Your task to perform on an android device: turn on the 12-hour format for clock Image 0: 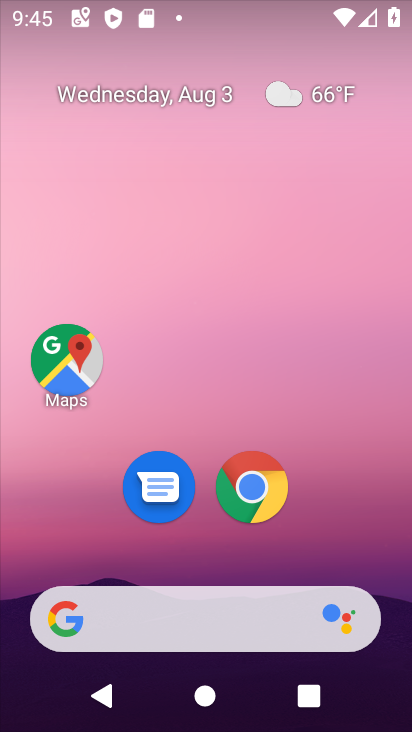
Step 0: drag from (76, 494) to (210, 23)
Your task to perform on an android device: turn on the 12-hour format for clock Image 1: 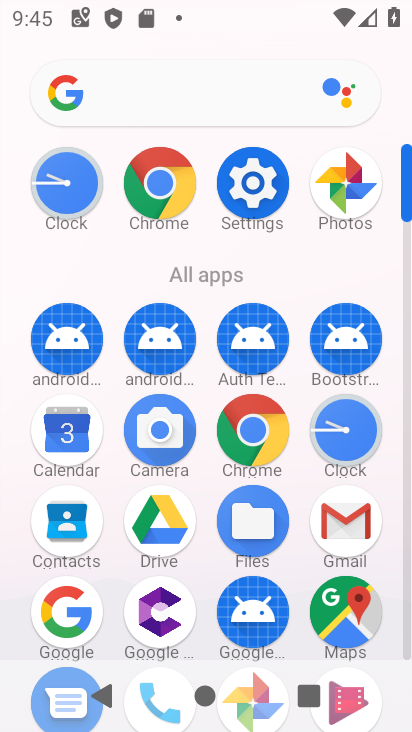
Step 1: click (346, 436)
Your task to perform on an android device: turn on the 12-hour format for clock Image 2: 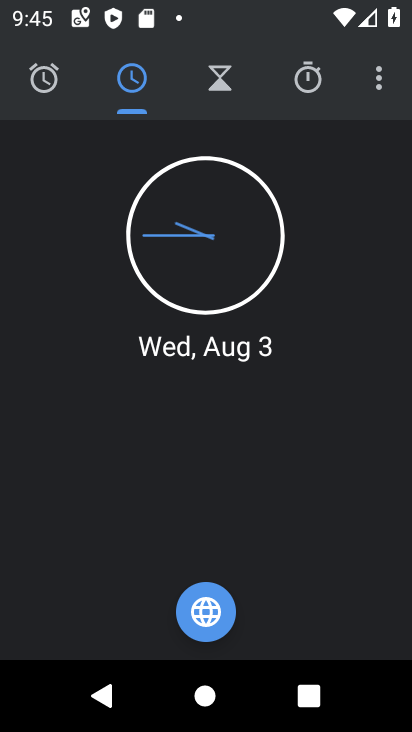
Step 2: click (379, 72)
Your task to perform on an android device: turn on the 12-hour format for clock Image 3: 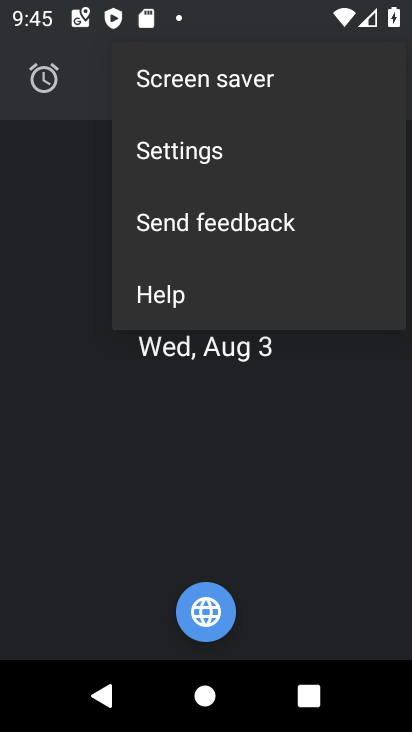
Step 3: click (204, 151)
Your task to perform on an android device: turn on the 12-hour format for clock Image 4: 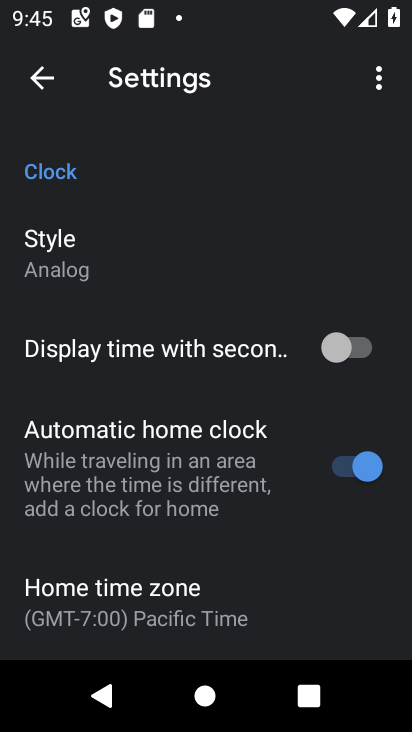
Step 4: drag from (136, 579) to (214, 58)
Your task to perform on an android device: turn on the 12-hour format for clock Image 5: 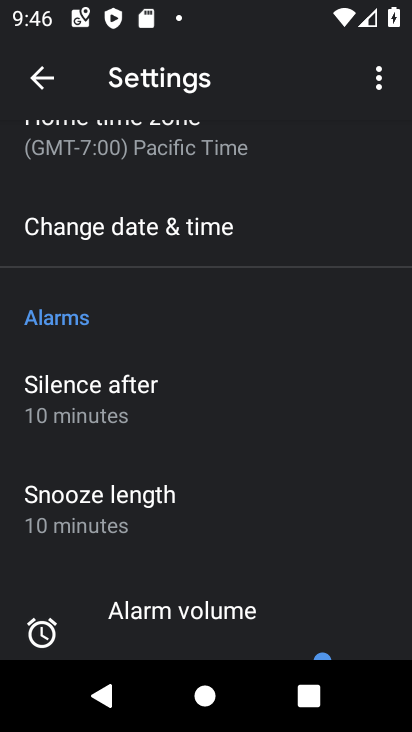
Step 5: click (144, 223)
Your task to perform on an android device: turn on the 12-hour format for clock Image 6: 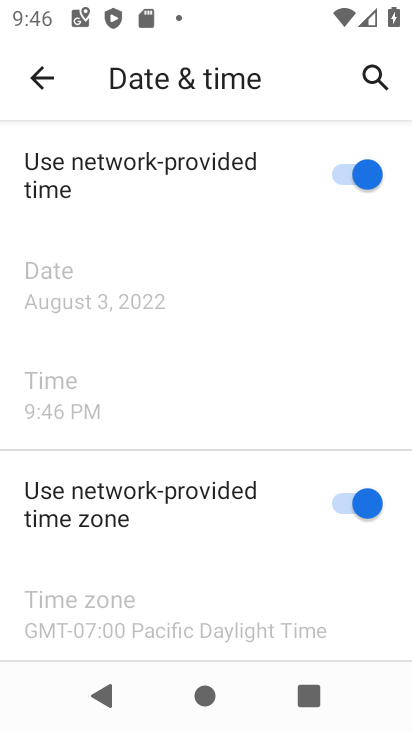
Step 6: task complete